Your task to perform on an android device: Go to Yahoo.com Image 0: 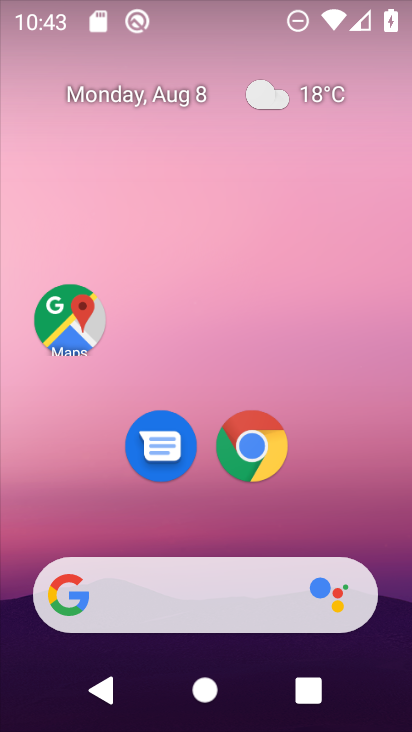
Step 0: click (250, 447)
Your task to perform on an android device: Go to Yahoo.com Image 1: 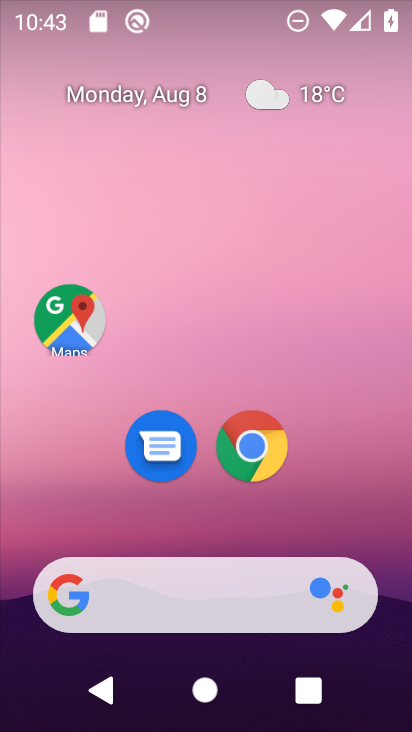
Step 1: click (250, 447)
Your task to perform on an android device: Go to Yahoo.com Image 2: 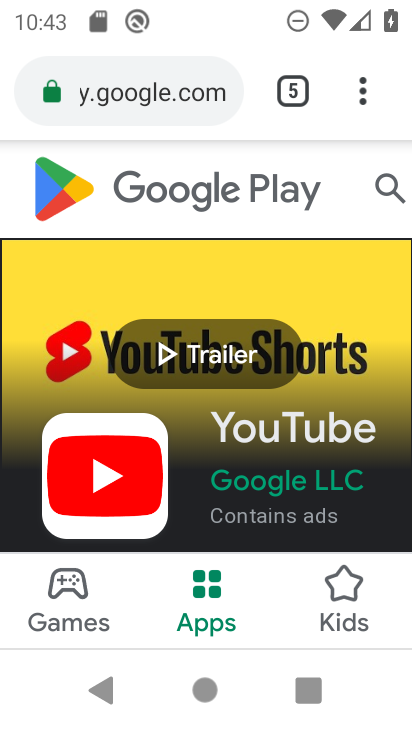
Step 2: click (225, 86)
Your task to perform on an android device: Go to Yahoo.com Image 3: 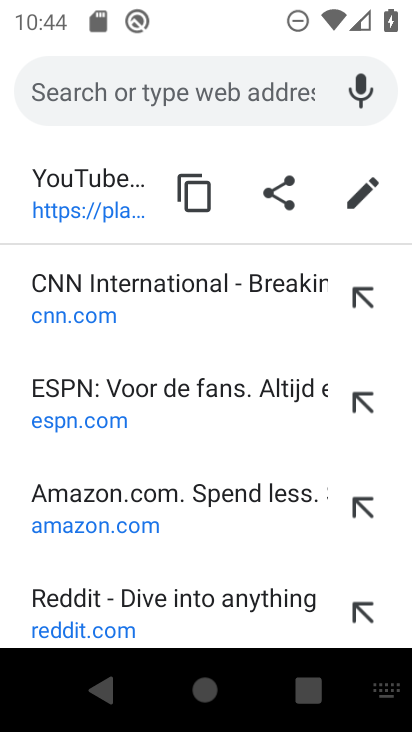
Step 3: type "yahoo.com"
Your task to perform on an android device: Go to Yahoo.com Image 4: 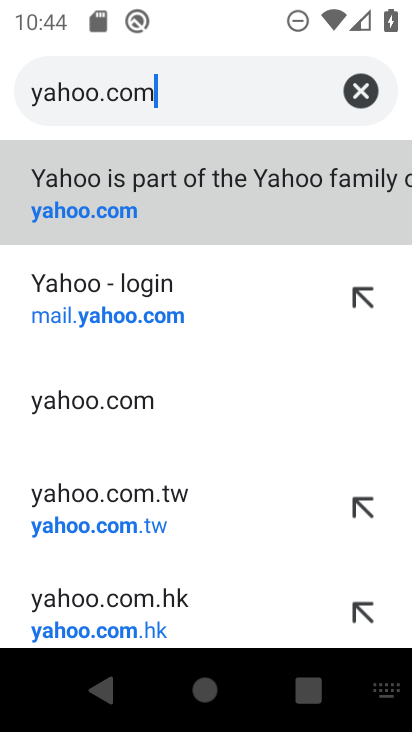
Step 4: click (105, 174)
Your task to perform on an android device: Go to Yahoo.com Image 5: 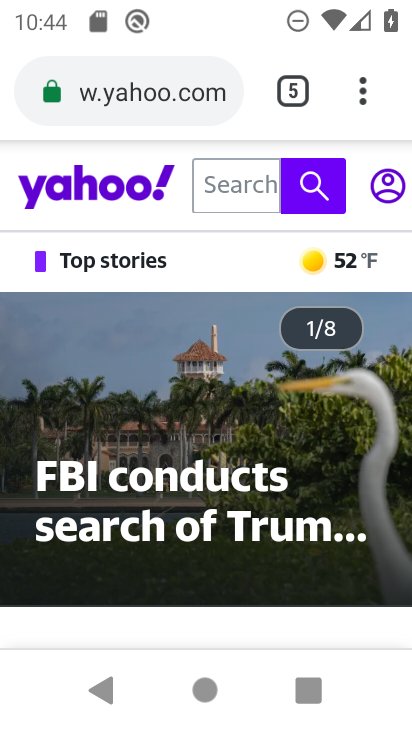
Step 5: task complete